Your task to perform on an android device: remove spam from my inbox in the gmail app Image 0: 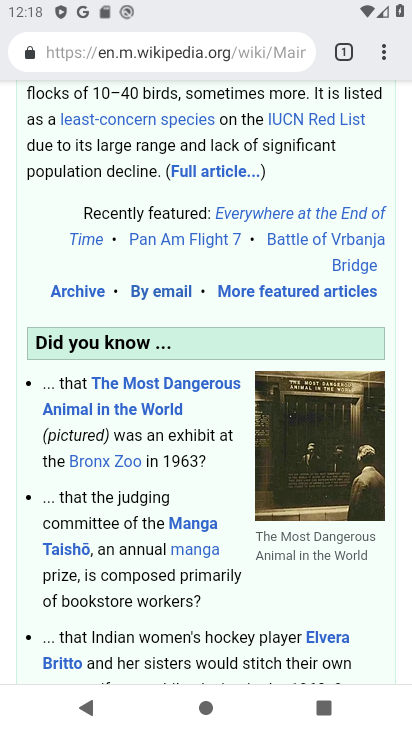
Step 0: press home button
Your task to perform on an android device: remove spam from my inbox in the gmail app Image 1: 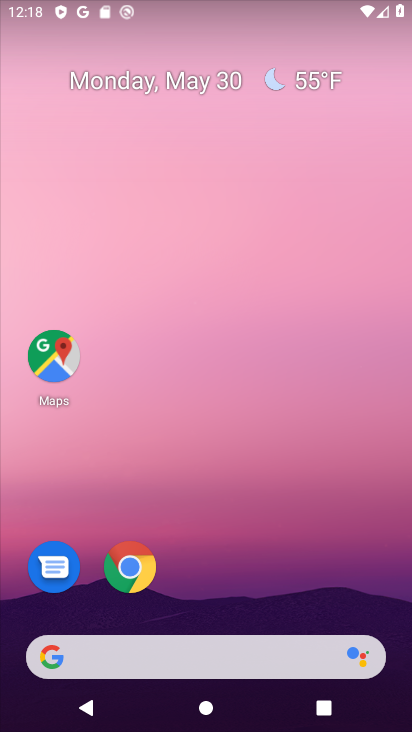
Step 1: drag from (214, 612) to (264, 72)
Your task to perform on an android device: remove spam from my inbox in the gmail app Image 2: 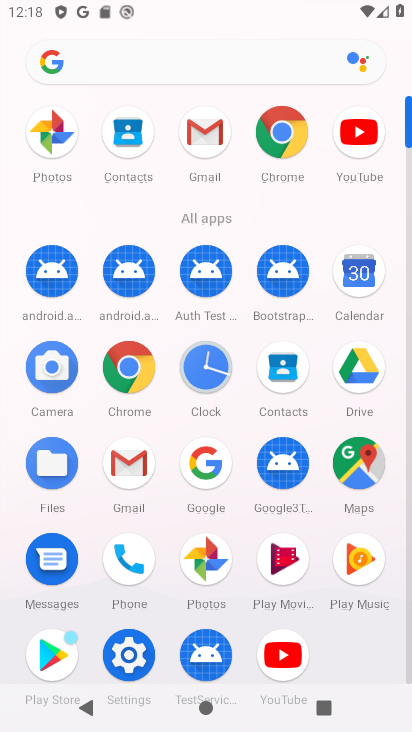
Step 2: click (135, 463)
Your task to perform on an android device: remove spam from my inbox in the gmail app Image 3: 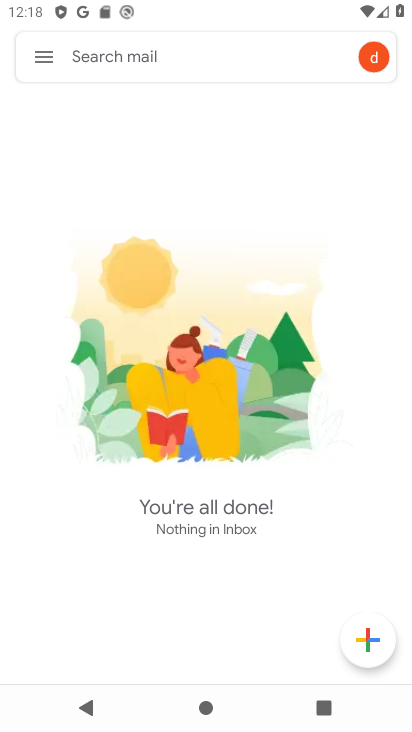
Step 3: click (31, 50)
Your task to perform on an android device: remove spam from my inbox in the gmail app Image 4: 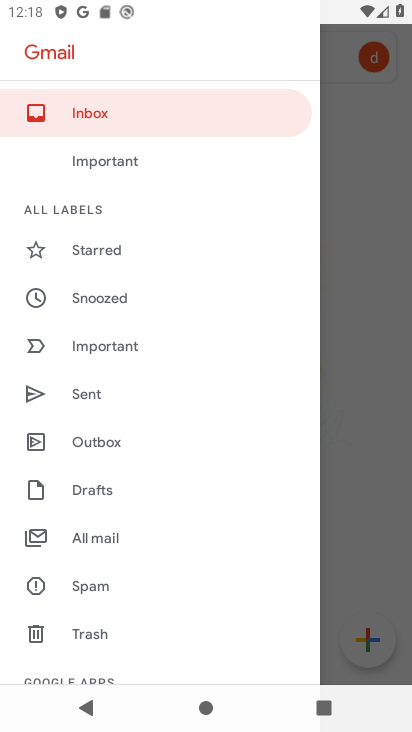
Step 4: click (117, 583)
Your task to perform on an android device: remove spam from my inbox in the gmail app Image 5: 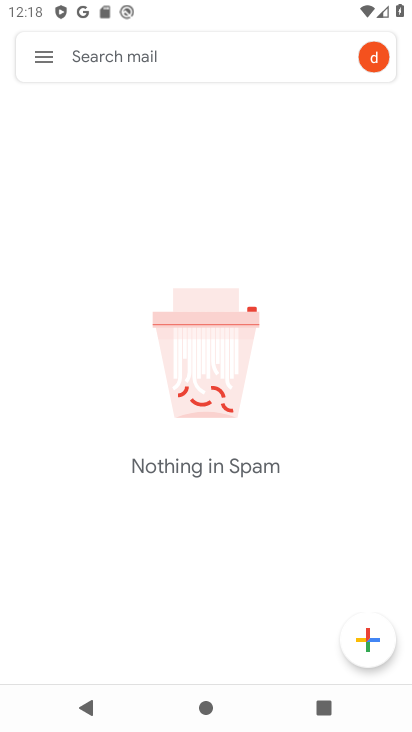
Step 5: task complete